Your task to perform on an android device: Go to Reddit.com Image 0: 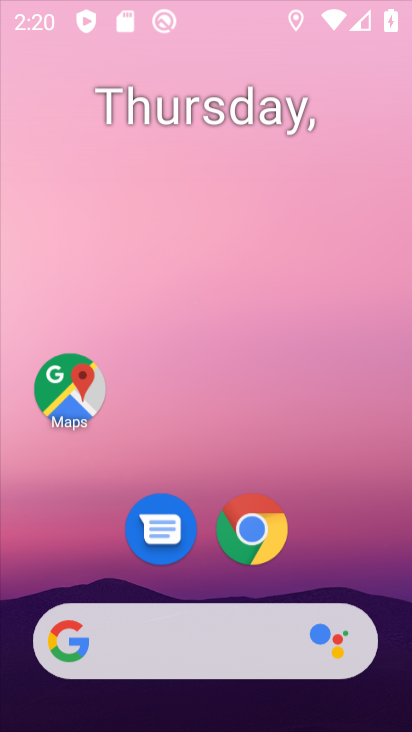
Step 0: click (48, 80)
Your task to perform on an android device: Go to Reddit.com Image 1: 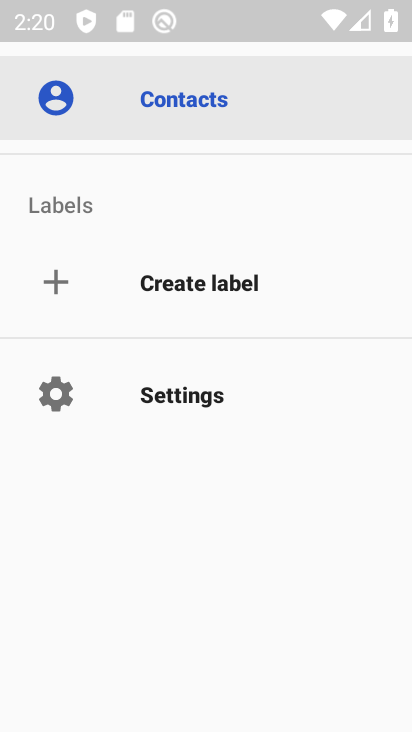
Step 1: press home button
Your task to perform on an android device: Go to Reddit.com Image 2: 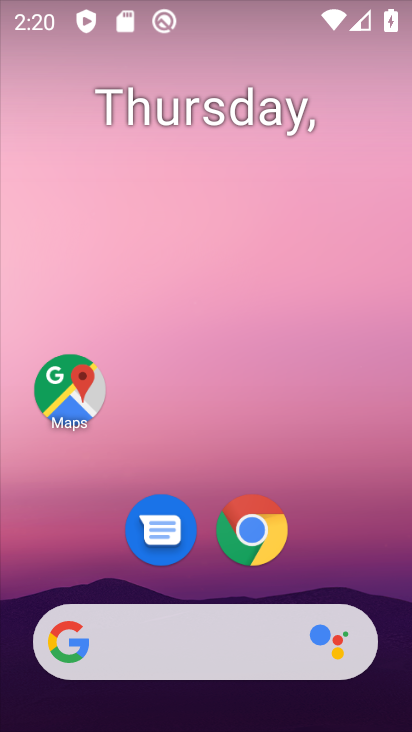
Step 2: click (269, 540)
Your task to perform on an android device: Go to Reddit.com Image 3: 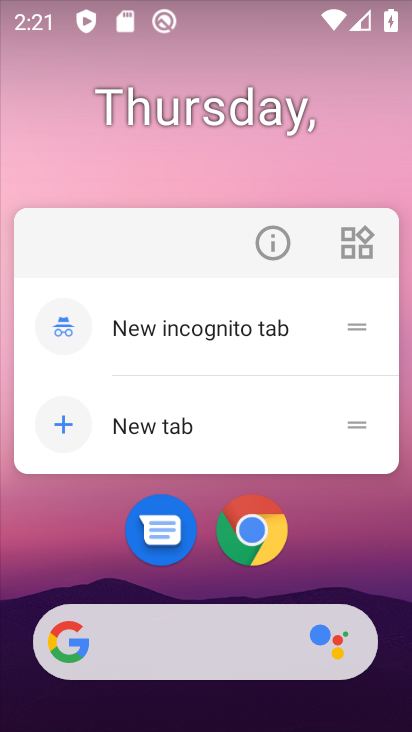
Step 3: click (269, 540)
Your task to perform on an android device: Go to Reddit.com Image 4: 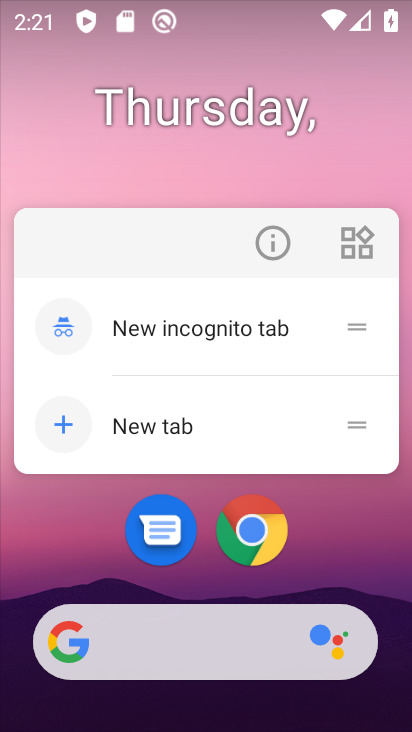
Step 4: click (269, 540)
Your task to perform on an android device: Go to Reddit.com Image 5: 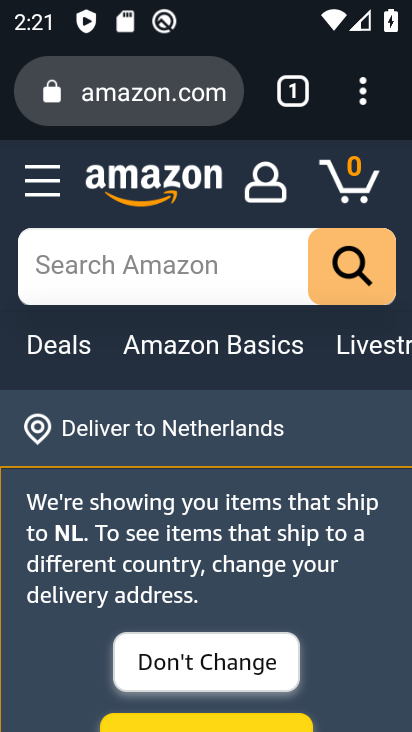
Step 5: click (352, 90)
Your task to perform on an android device: Go to Reddit.com Image 6: 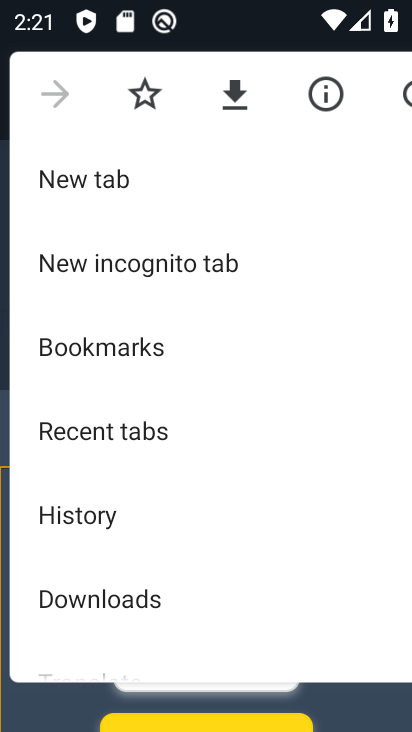
Step 6: click (104, 187)
Your task to perform on an android device: Go to Reddit.com Image 7: 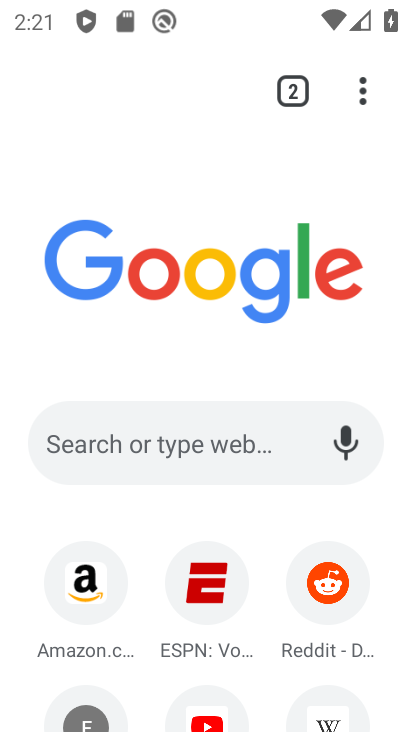
Step 7: click (178, 444)
Your task to perform on an android device: Go to Reddit.com Image 8: 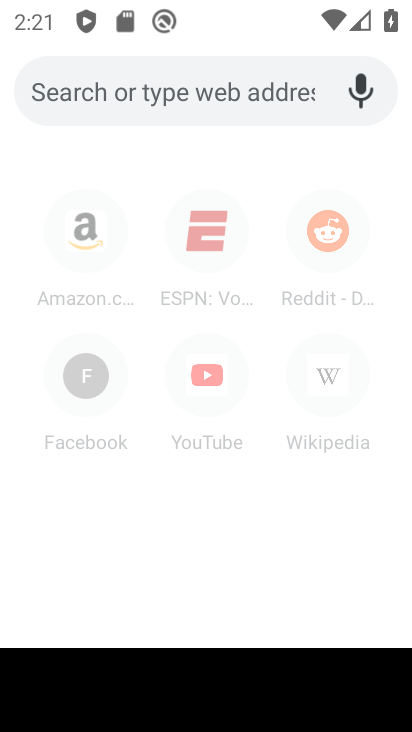
Step 8: type "reddit.com"
Your task to perform on an android device: Go to Reddit.com Image 9: 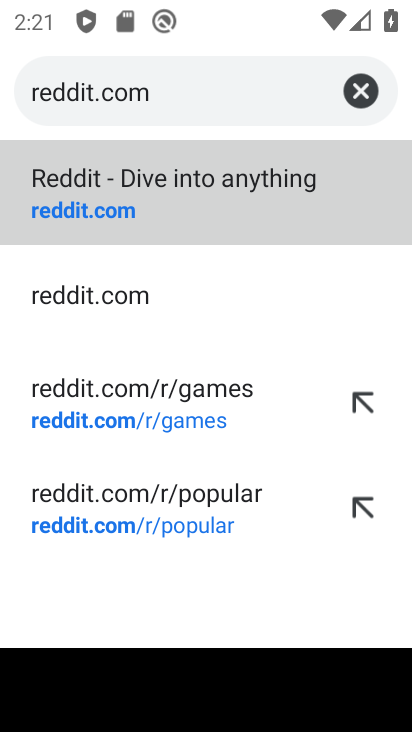
Step 9: click (169, 200)
Your task to perform on an android device: Go to Reddit.com Image 10: 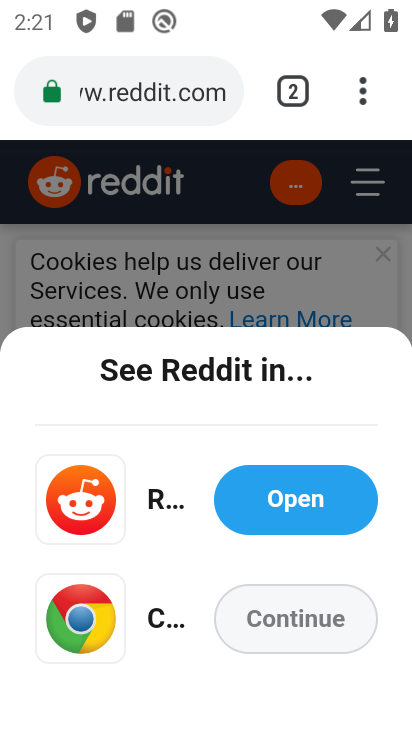
Step 10: click (183, 511)
Your task to perform on an android device: Go to Reddit.com Image 11: 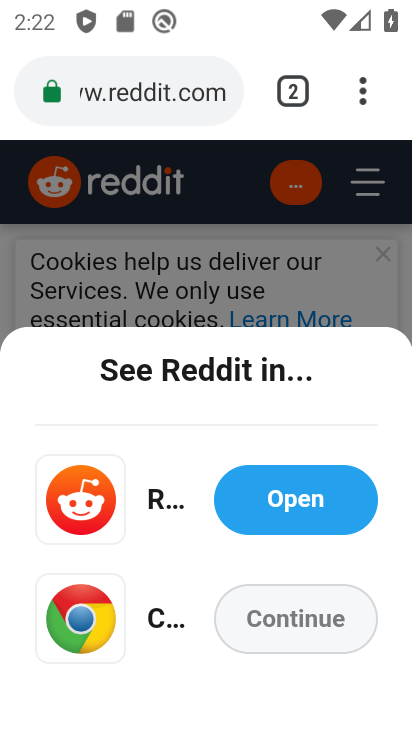
Step 11: click (217, 227)
Your task to perform on an android device: Go to Reddit.com Image 12: 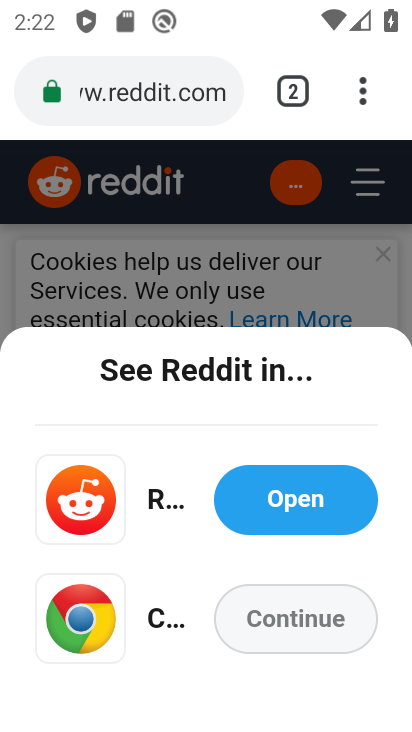
Step 12: task complete